Your task to perform on an android device: turn vacation reply on in the gmail app Image 0: 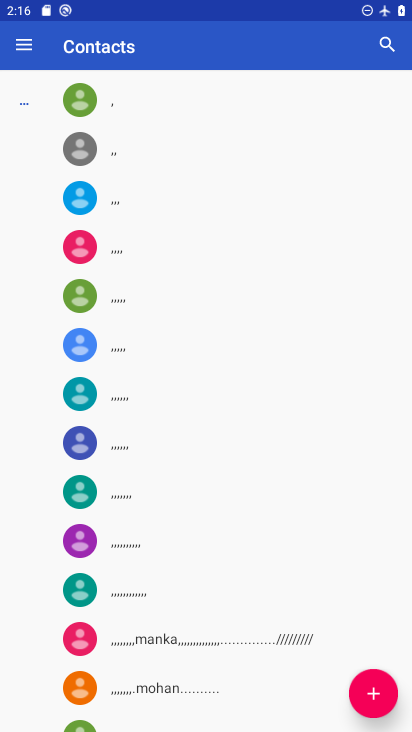
Step 0: press home button
Your task to perform on an android device: turn vacation reply on in the gmail app Image 1: 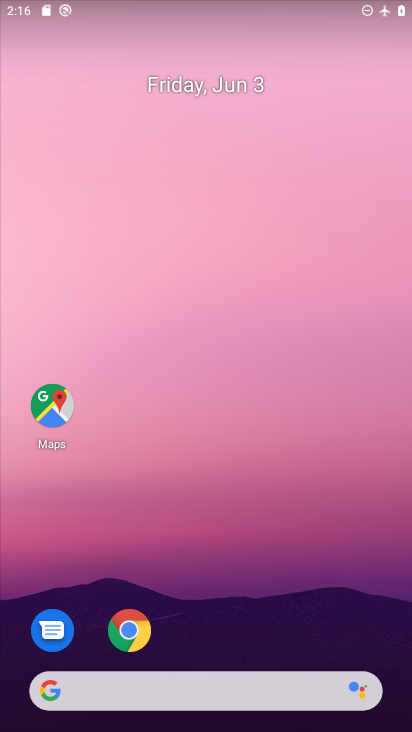
Step 1: drag from (218, 726) to (220, 124)
Your task to perform on an android device: turn vacation reply on in the gmail app Image 2: 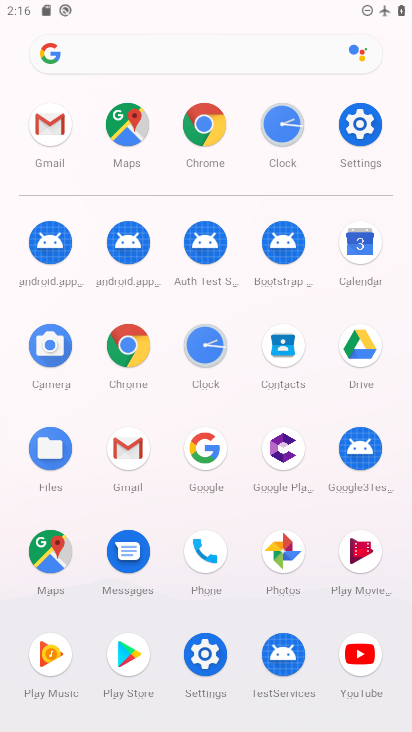
Step 2: click (131, 448)
Your task to perform on an android device: turn vacation reply on in the gmail app Image 3: 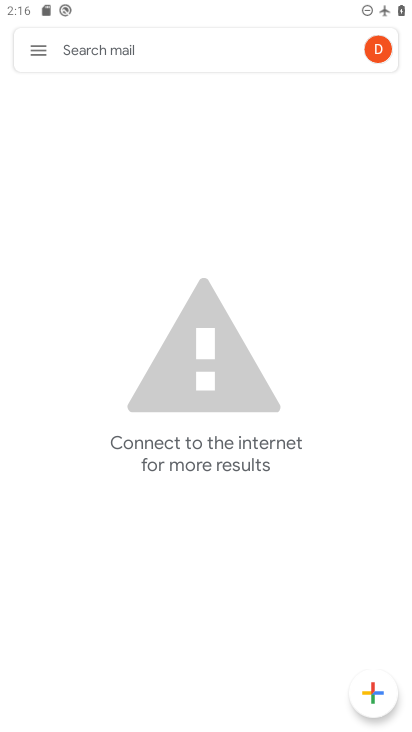
Step 3: click (41, 50)
Your task to perform on an android device: turn vacation reply on in the gmail app Image 4: 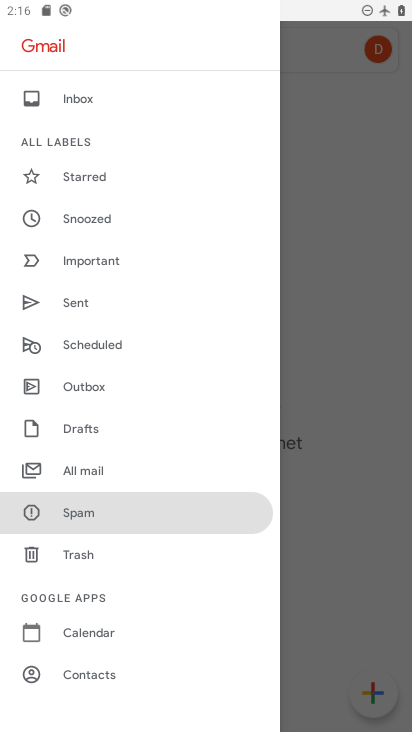
Step 4: drag from (176, 680) to (179, 301)
Your task to perform on an android device: turn vacation reply on in the gmail app Image 5: 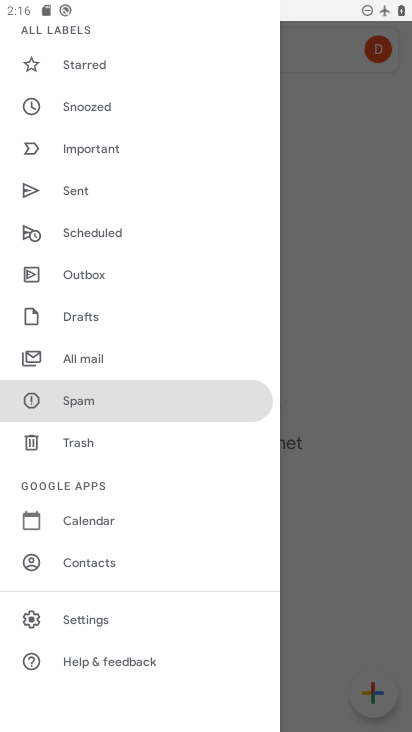
Step 5: click (80, 620)
Your task to perform on an android device: turn vacation reply on in the gmail app Image 6: 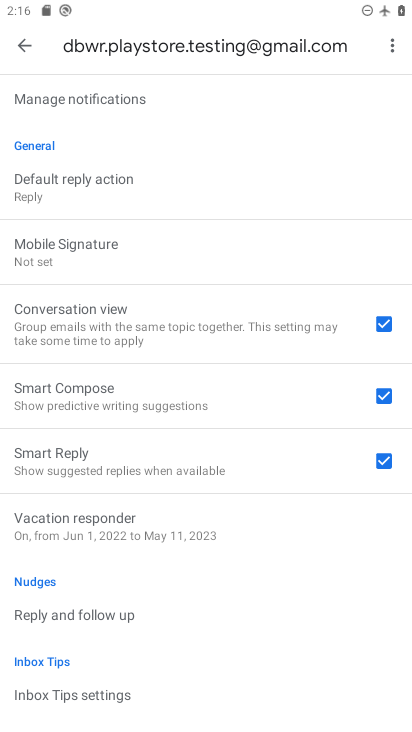
Step 6: click (100, 523)
Your task to perform on an android device: turn vacation reply on in the gmail app Image 7: 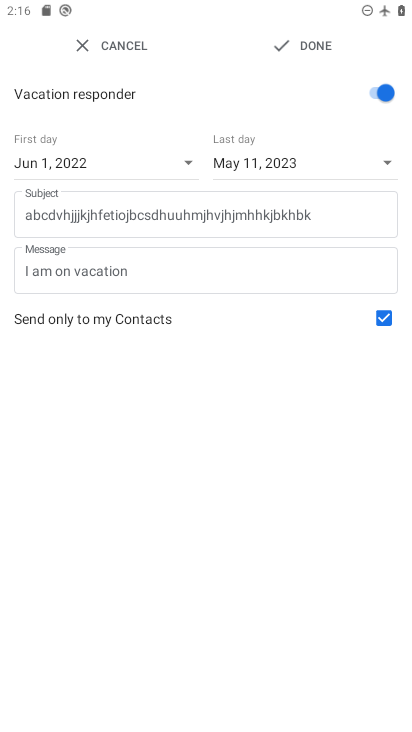
Step 7: task complete